Your task to perform on an android device: uninstall "Google Play Music" Image 0: 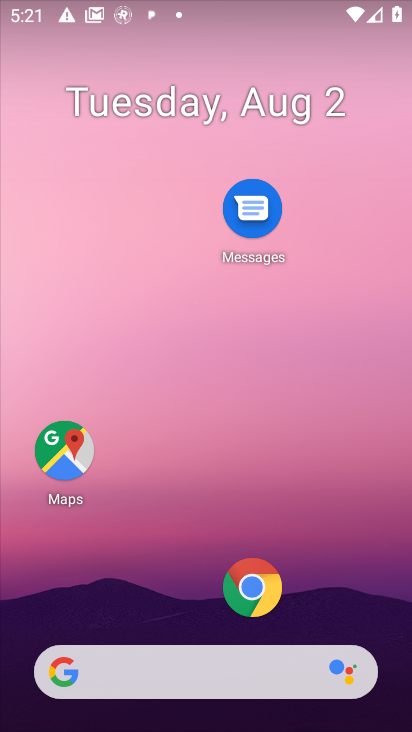
Step 0: drag from (172, 589) to (211, 225)
Your task to perform on an android device: uninstall "Google Play Music" Image 1: 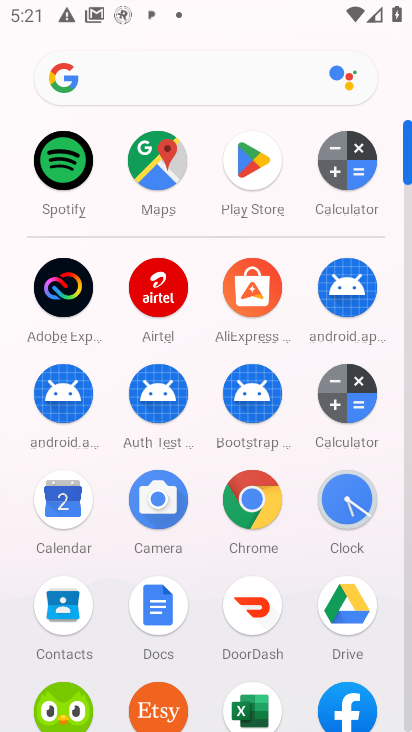
Step 1: click (272, 153)
Your task to perform on an android device: uninstall "Google Play Music" Image 2: 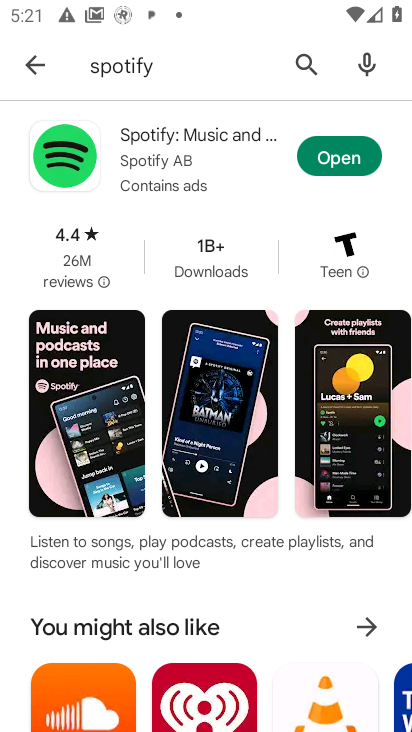
Step 2: click (307, 70)
Your task to perform on an android device: uninstall "Google Play Music" Image 3: 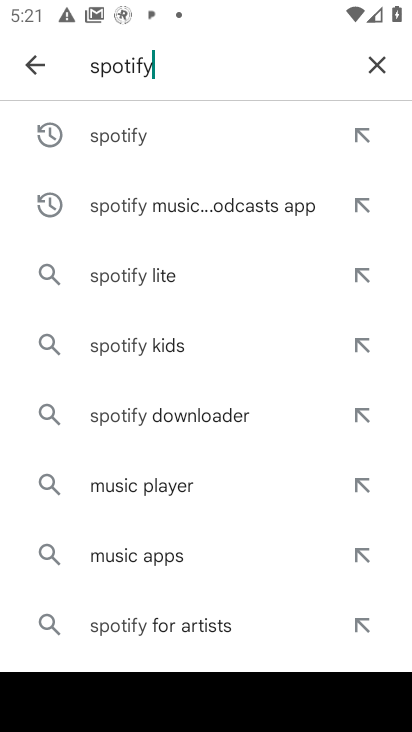
Step 3: click (363, 62)
Your task to perform on an android device: uninstall "Google Play Music" Image 4: 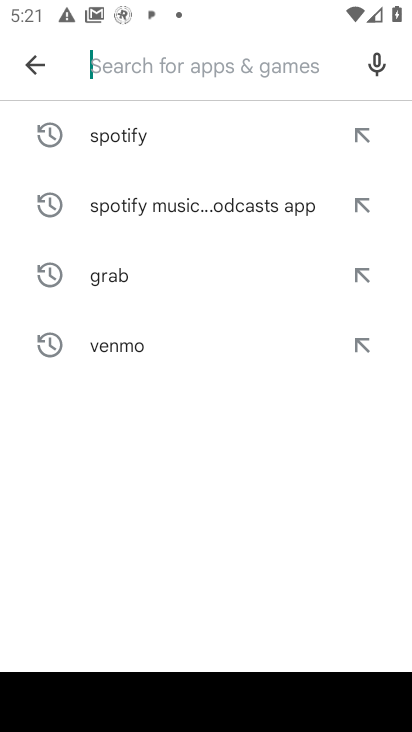
Step 4: type "Google Play Music"
Your task to perform on an android device: uninstall "Google Play Music" Image 5: 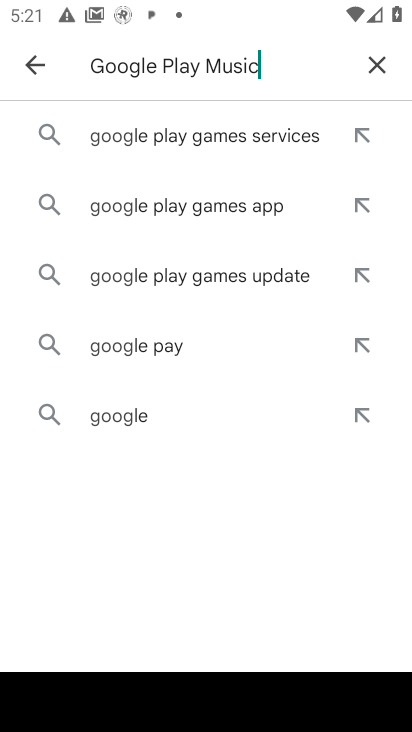
Step 5: type ""
Your task to perform on an android device: uninstall "Google Play Music" Image 6: 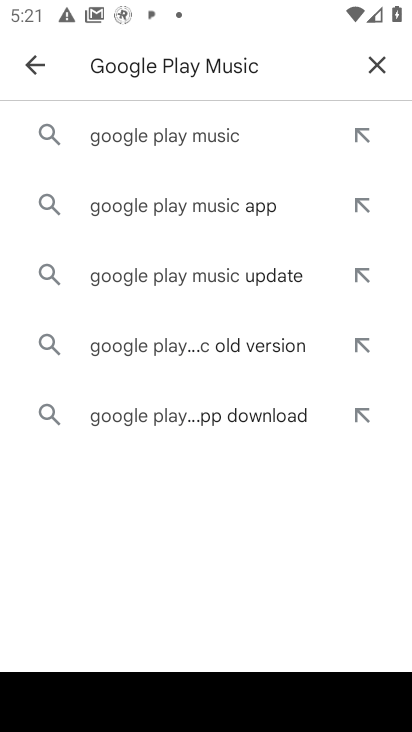
Step 6: click (191, 148)
Your task to perform on an android device: uninstall "Google Play Music" Image 7: 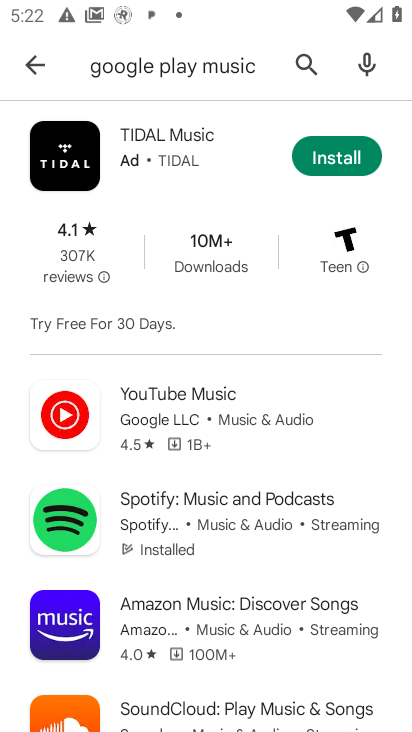
Step 7: task complete